Your task to perform on an android device: find snoozed emails in the gmail app Image 0: 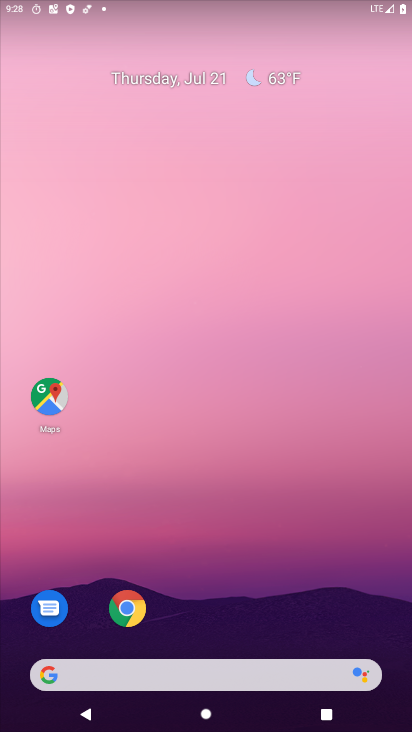
Step 0: drag from (176, 612) to (171, 212)
Your task to perform on an android device: find snoozed emails in the gmail app Image 1: 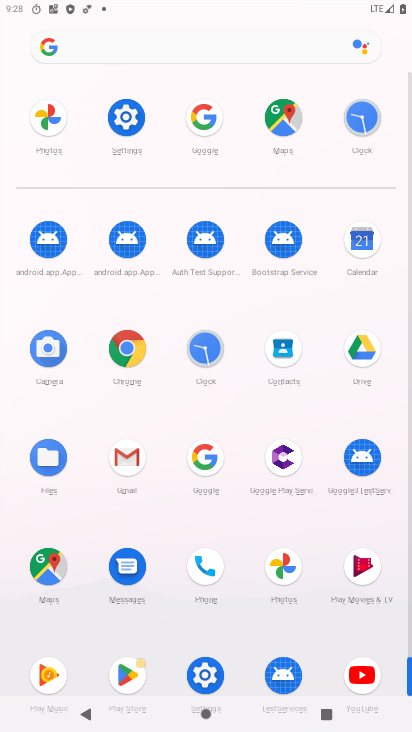
Step 1: click (137, 467)
Your task to perform on an android device: find snoozed emails in the gmail app Image 2: 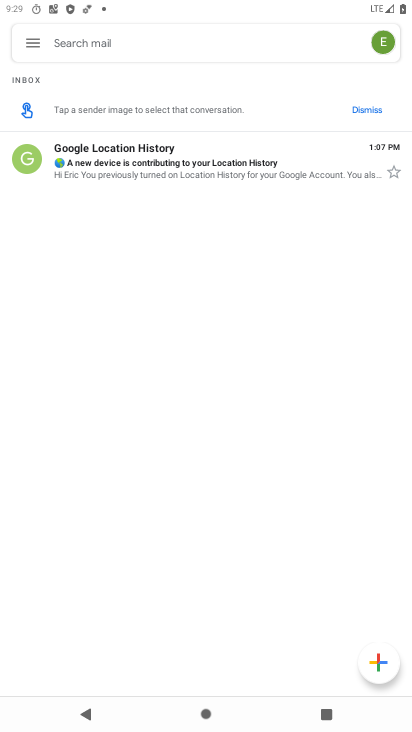
Step 2: click (30, 48)
Your task to perform on an android device: find snoozed emails in the gmail app Image 3: 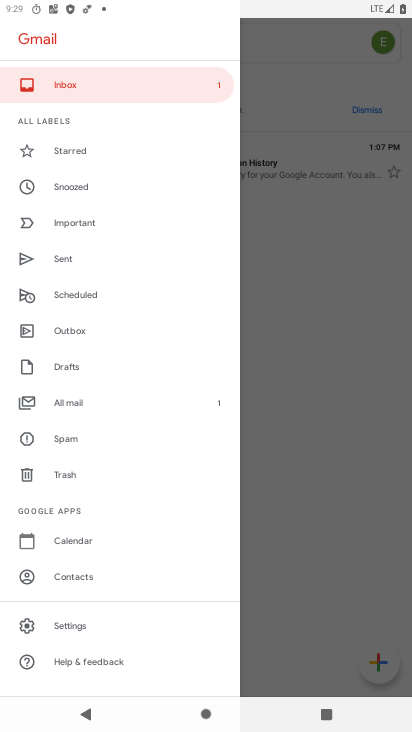
Step 3: click (78, 187)
Your task to perform on an android device: find snoozed emails in the gmail app Image 4: 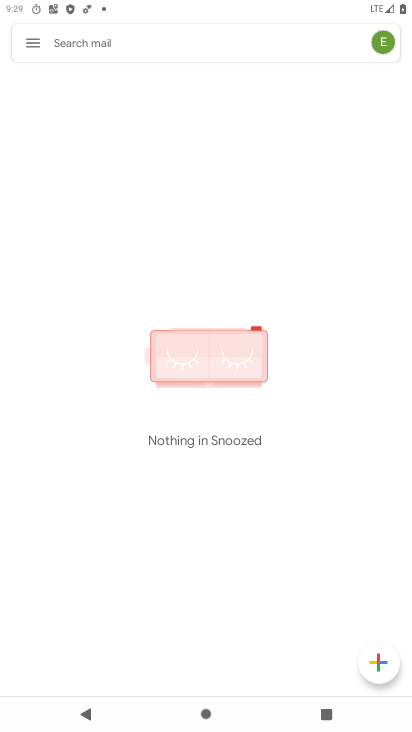
Step 4: task complete